Your task to perform on an android device: Search for vegetarian restaurants on Maps Image 0: 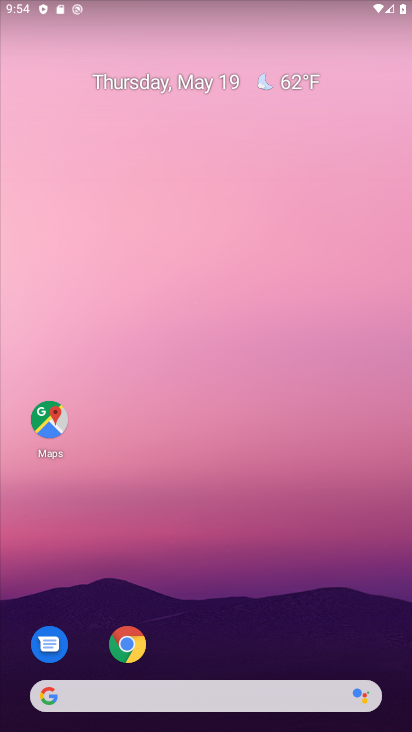
Step 0: drag from (356, 690) to (236, 109)
Your task to perform on an android device: Search for vegetarian restaurants on Maps Image 1: 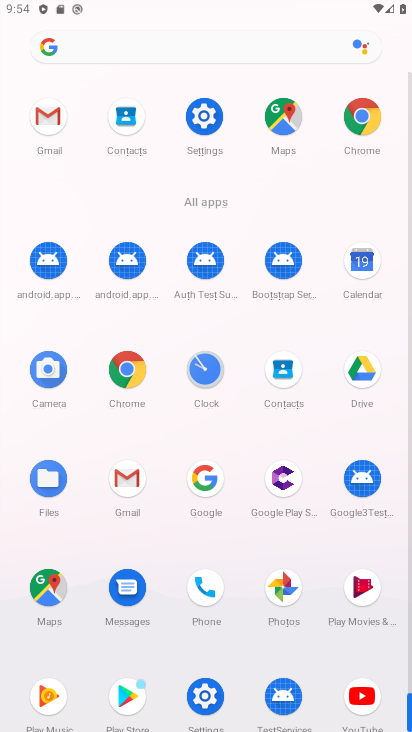
Step 1: click (48, 585)
Your task to perform on an android device: Search for vegetarian restaurants on Maps Image 2: 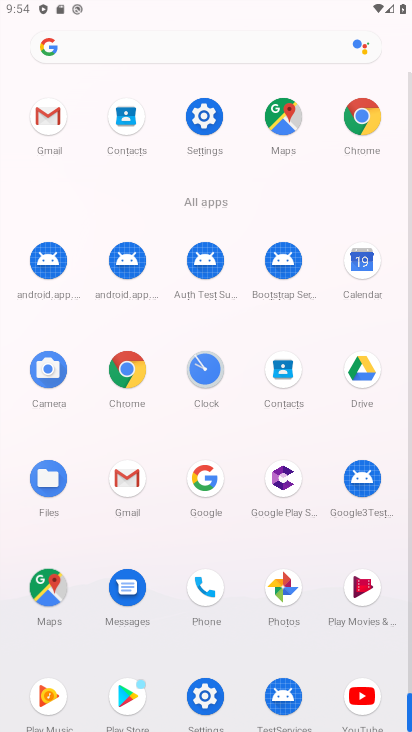
Step 2: click (49, 585)
Your task to perform on an android device: Search for vegetarian restaurants on Maps Image 3: 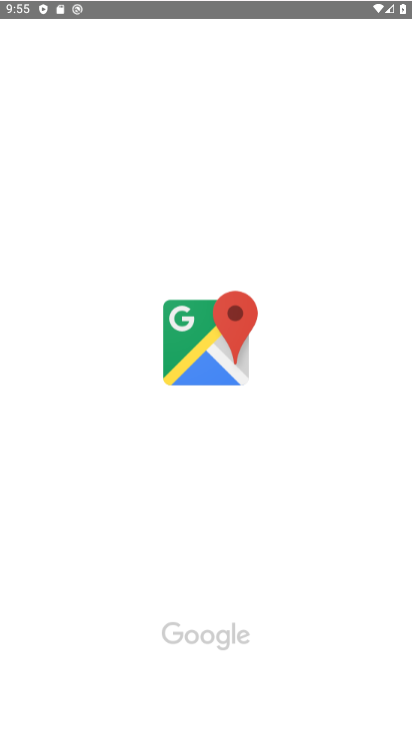
Step 3: click (49, 582)
Your task to perform on an android device: Search for vegetarian restaurants on Maps Image 4: 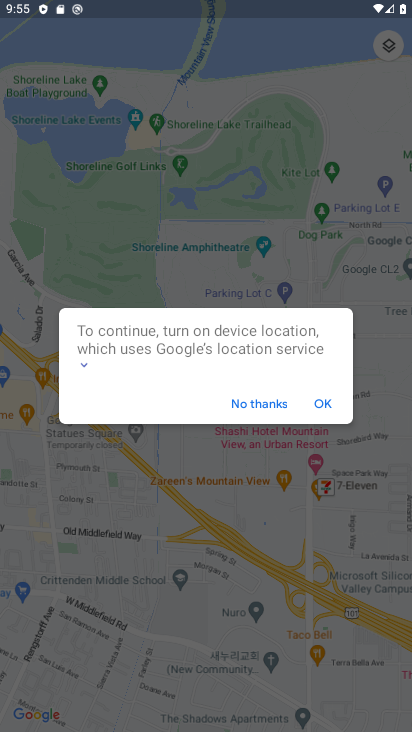
Step 4: click (329, 398)
Your task to perform on an android device: Search for vegetarian restaurants on Maps Image 5: 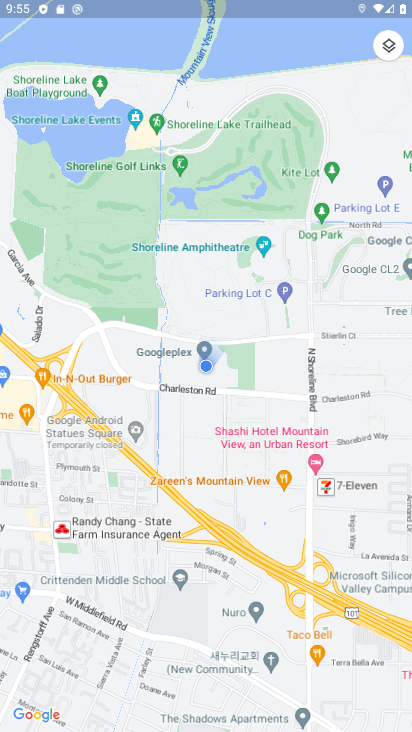
Step 5: drag from (173, 92) to (164, 467)
Your task to perform on an android device: Search for vegetarian restaurants on Maps Image 6: 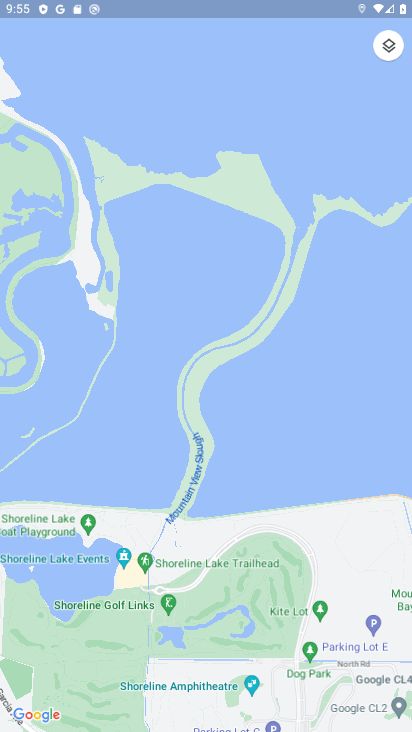
Step 6: drag from (389, 686) to (358, 126)
Your task to perform on an android device: Search for vegetarian restaurants on Maps Image 7: 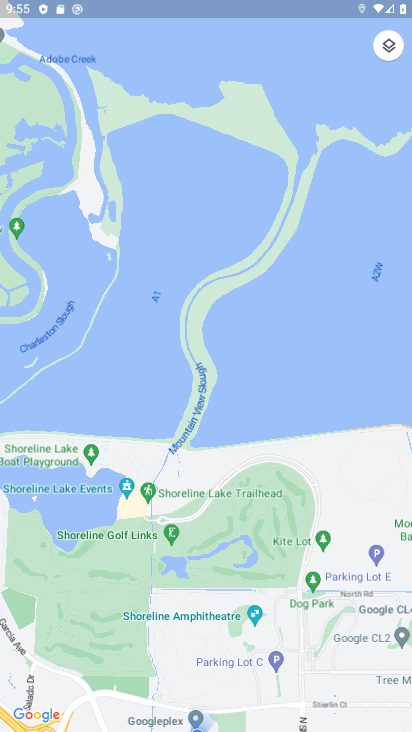
Step 7: drag from (17, 105) to (255, 291)
Your task to perform on an android device: Search for vegetarian restaurants on Maps Image 8: 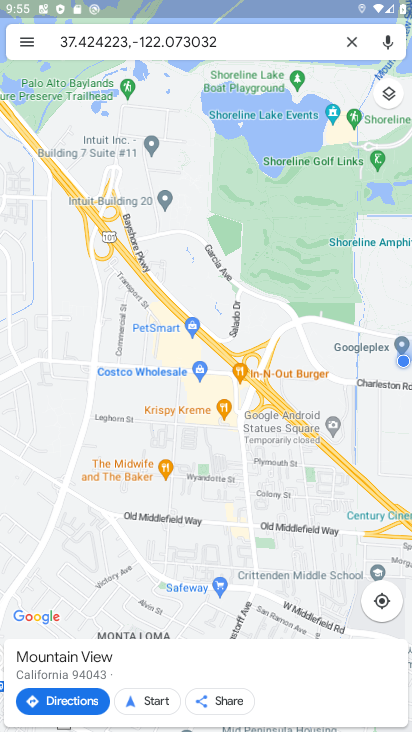
Step 8: click (45, 82)
Your task to perform on an android device: Search for vegetarian restaurants on Maps Image 9: 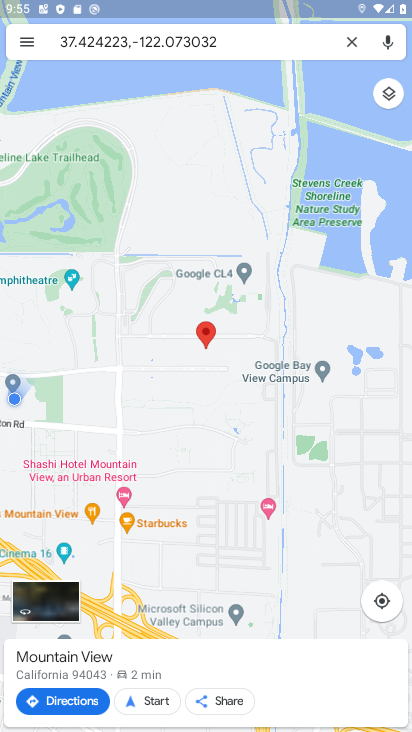
Step 9: click (67, 42)
Your task to perform on an android device: Search for vegetarian restaurants on Maps Image 10: 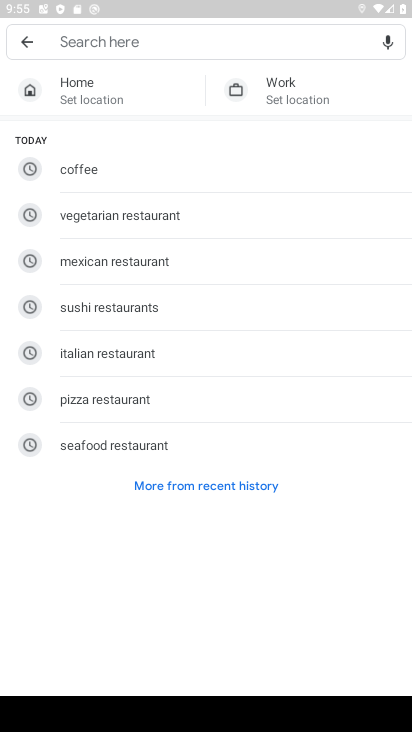
Step 10: click (66, 40)
Your task to perform on an android device: Search for vegetarian restaurants on Maps Image 11: 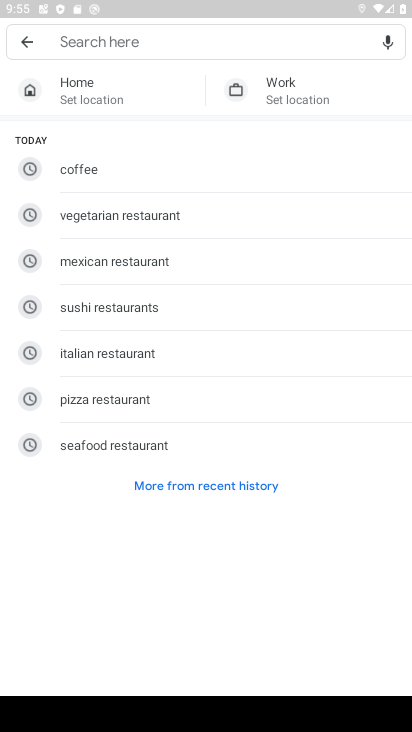
Step 11: click (80, 196)
Your task to perform on an android device: Search for vegetarian restaurants on Maps Image 12: 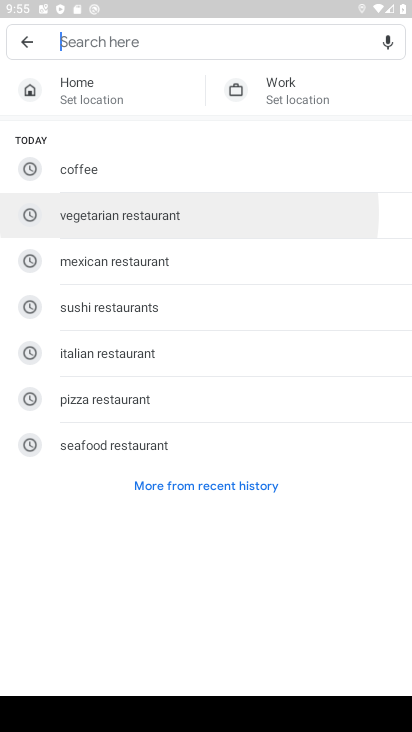
Step 12: click (99, 213)
Your task to perform on an android device: Search for vegetarian restaurants on Maps Image 13: 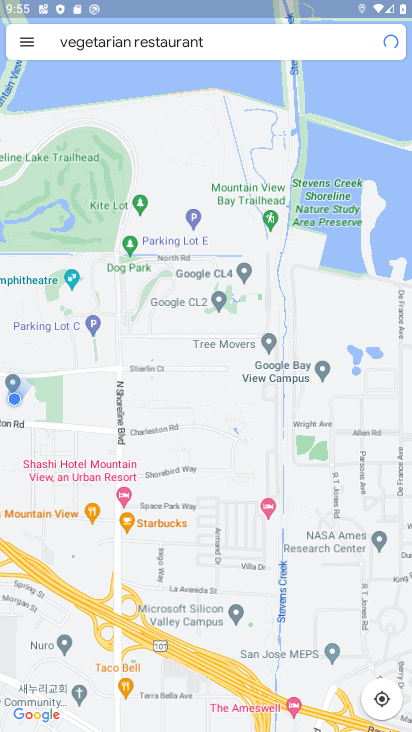
Step 13: task complete